Your task to perform on an android device: toggle data saver in the chrome app Image 0: 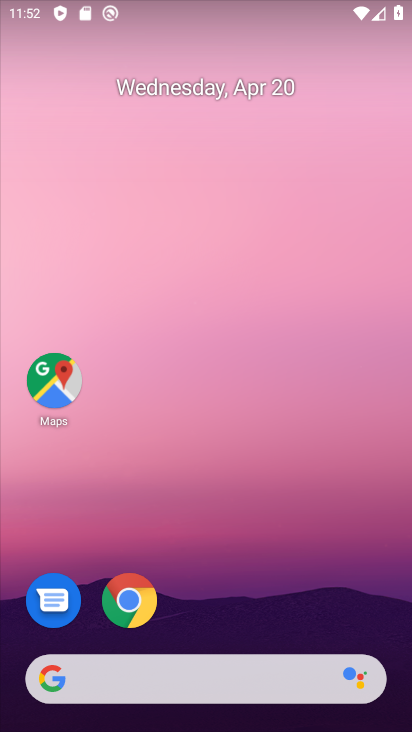
Step 0: click (129, 609)
Your task to perform on an android device: toggle data saver in the chrome app Image 1: 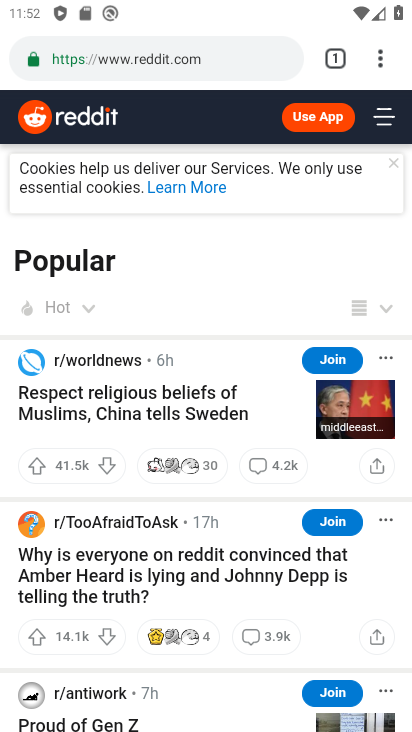
Step 1: click (379, 52)
Your task to perform on an android device: toggle data saver in the chrome app Image 2: 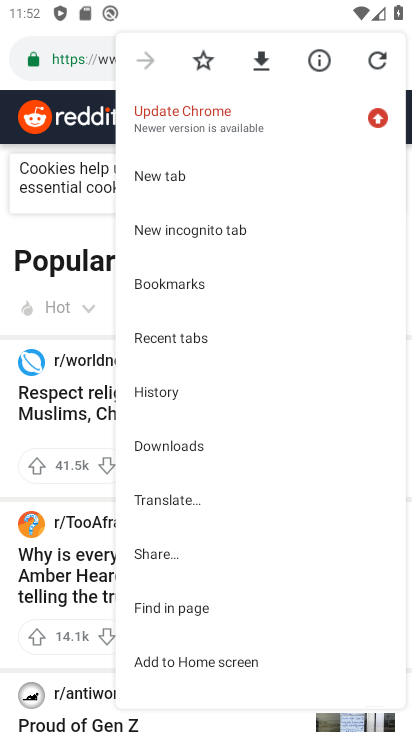
Step 2: drag from (250, 297) to (221, 80)
Your task to perform on an android device: toggle data saver in the chrome app Image 3: 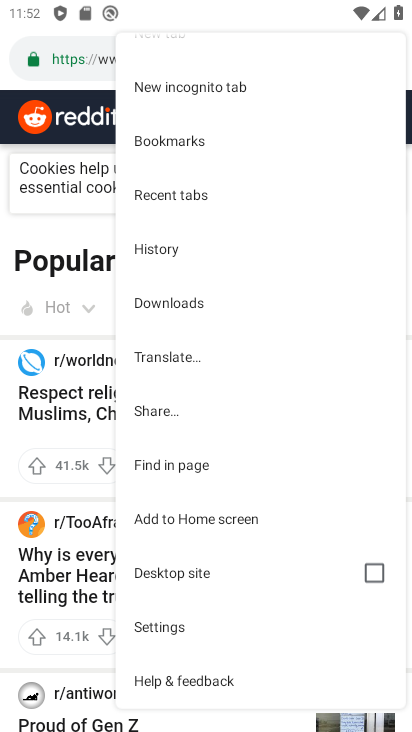
Step 3: click (228, 626)
Your task to perform on an android device: toggle data saver in the chrome app Image 4: 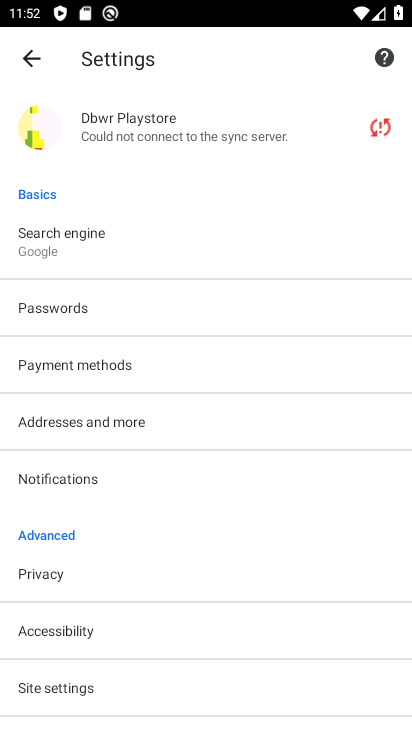
Step 4: drag from (228, 626) to (230, 397)
Your task to perform on an android device: toggle data saver in the chrome app Image 5: 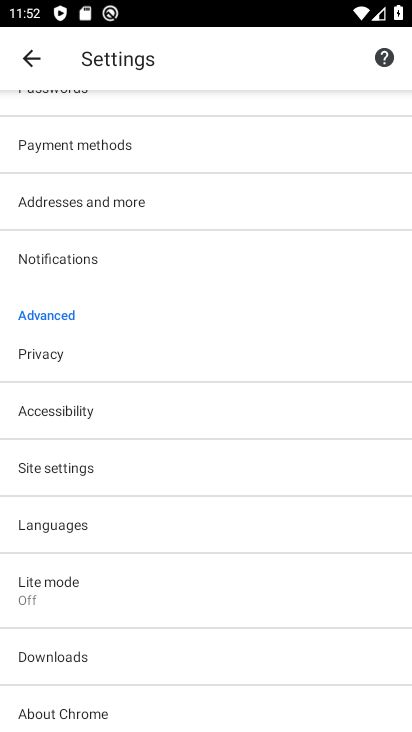
Step 5: click (186, 592)
Your task to perform on an android device: toggle data saver in the chrome app Image 6: 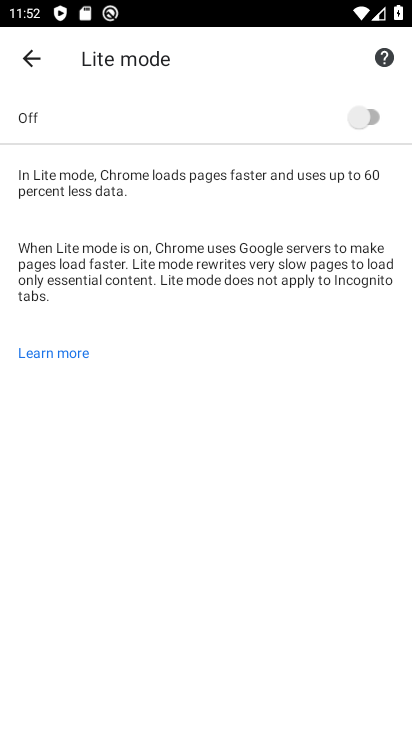
Step 6: click (372, 103)
Your task to perform on an android device: toggle data saver in the chrome app Image 7: 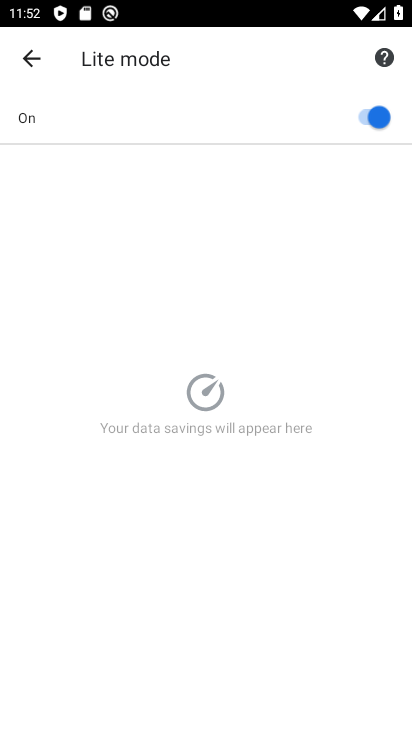
Step 7: task complete